Your task to perform on an android device: turn on notifications settings in the gmail app Image 0: 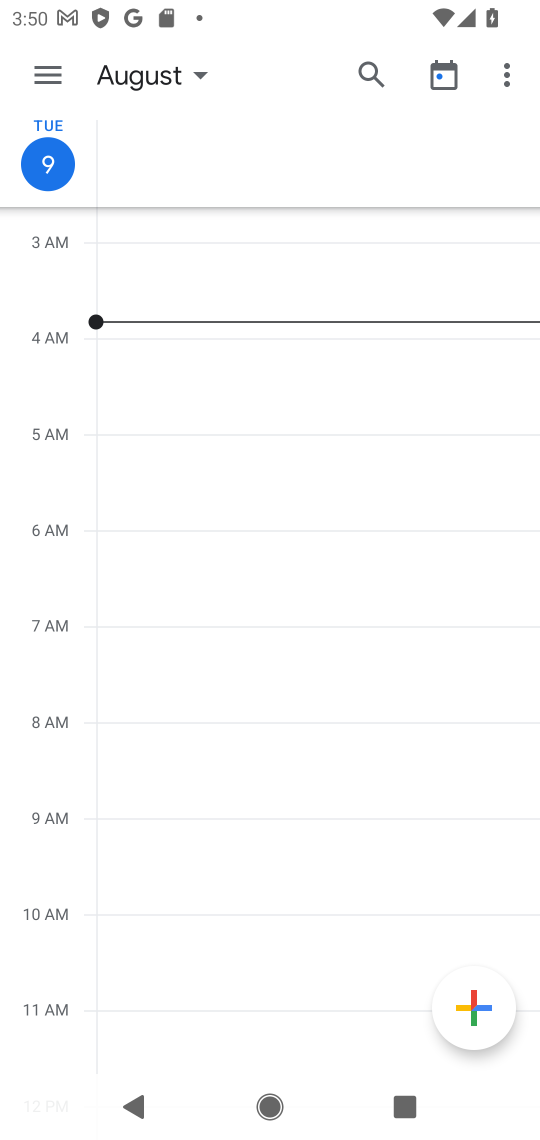
Step 0: press home button
Your task to perform on an android device: turn on notifications settings in the gmail app Image 1: 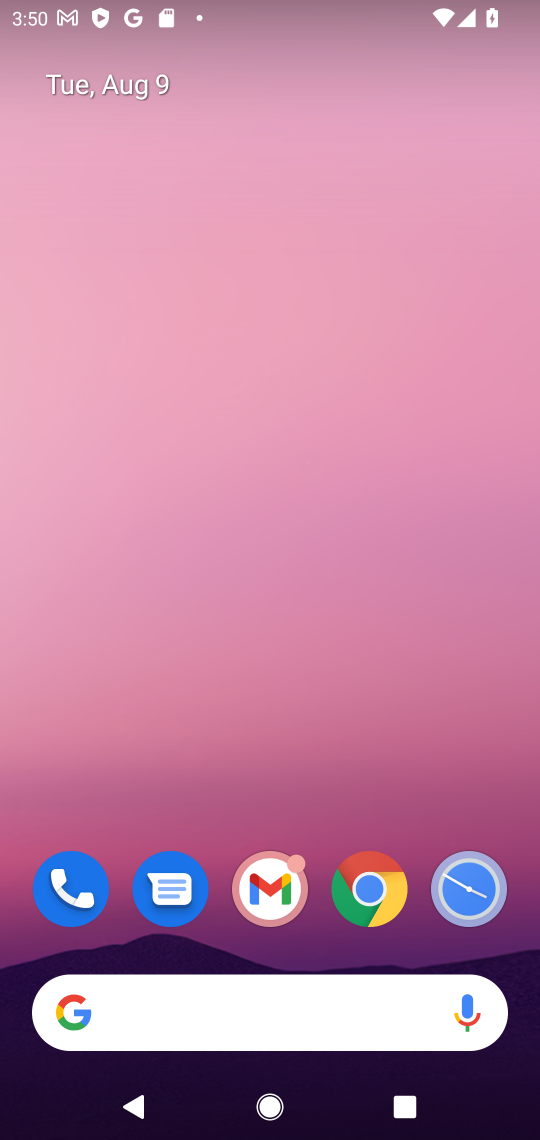
Step 1: click (278, 884)
Your task to perform on an android device: turn on notifications settings in the gmail app Image 2: 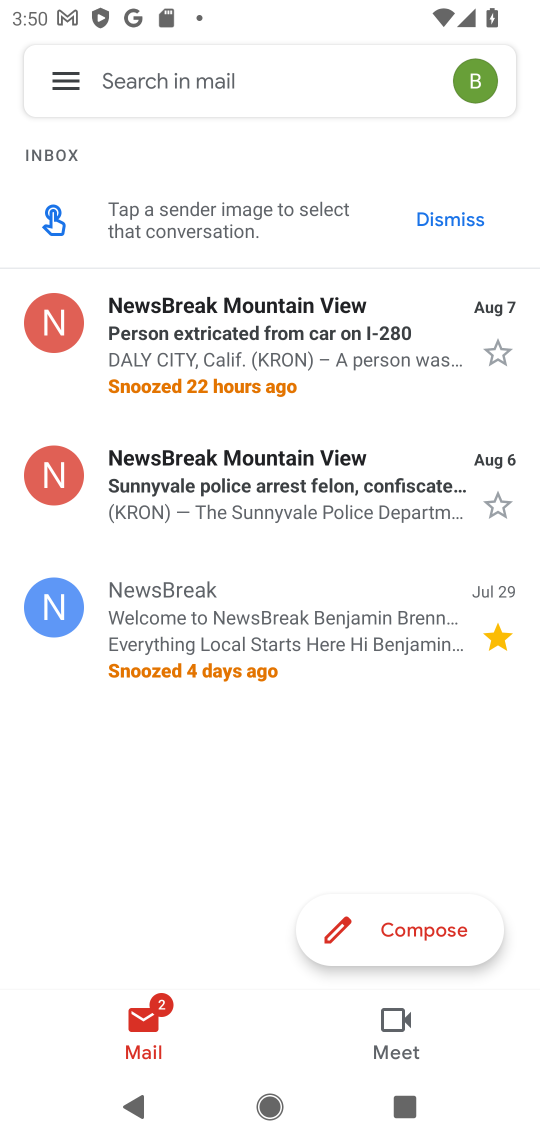
Step 2: click (65, 75)
Your task to perform on an android device: turn on notifications settings in the gmail app Image 3: 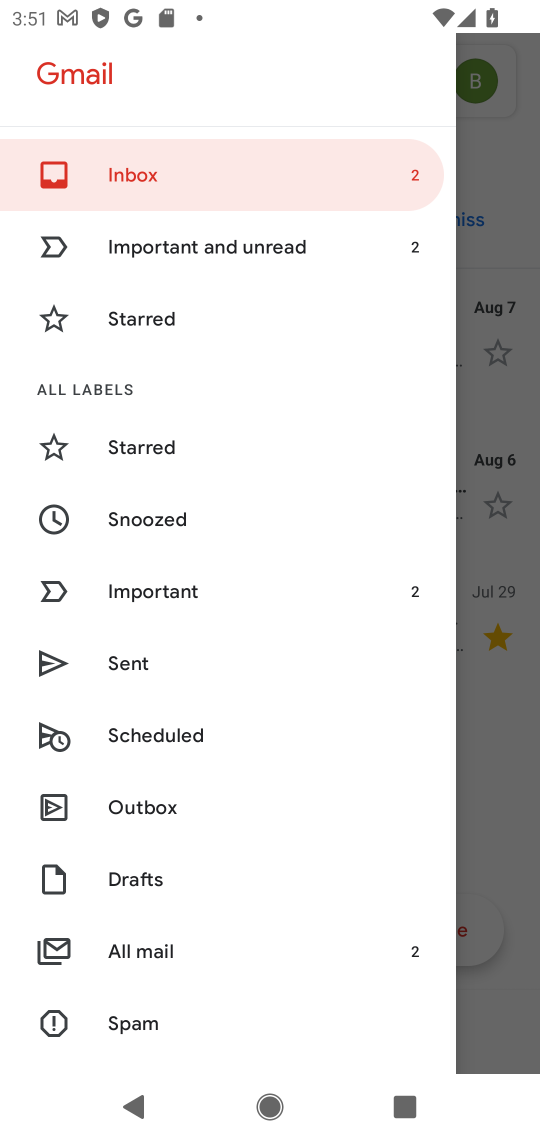
Step 3: drag from (209, 886) to (291, 159)
Your task to perform on an android device: turn on notifications settings in the gmail app Image 4: 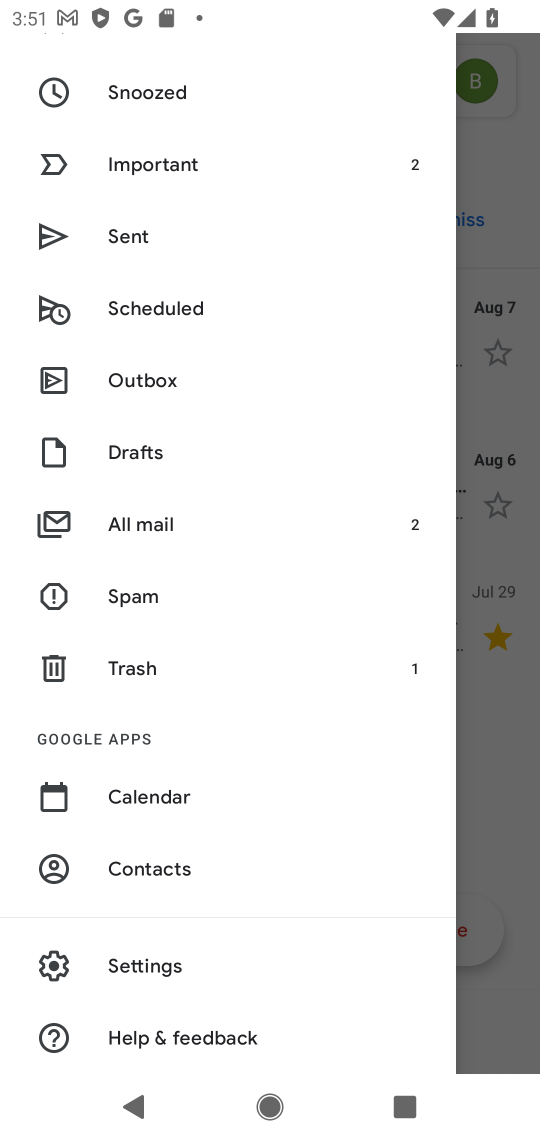
Step 4: click (158, 963)
Your task to perform on an android device: turn on notifications settings in the gmail app Image 5: 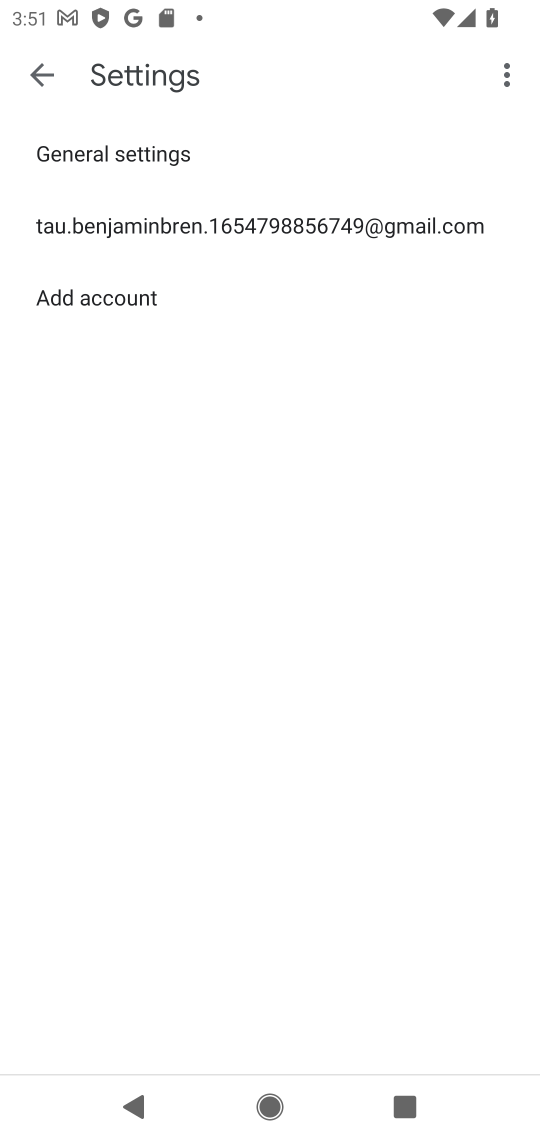
Step 5: click (286, 217)
Your task to perform on an android device: turn on notifications settings in the gmail app Image 6: 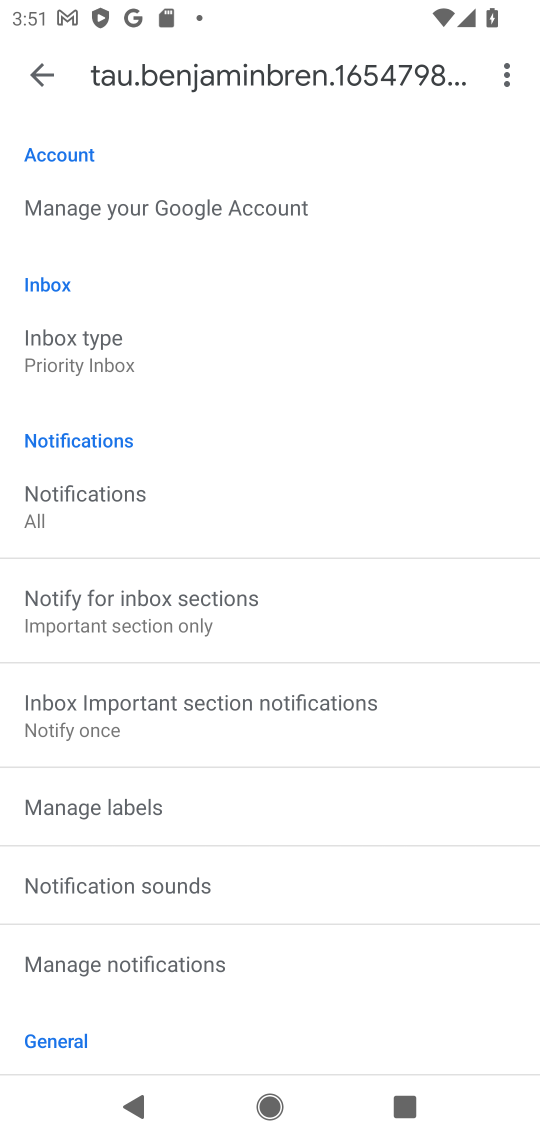
Step 6: click (209, 959)
Your task to perform on an android device: turn on notifications settings in the gmail app Image 7: 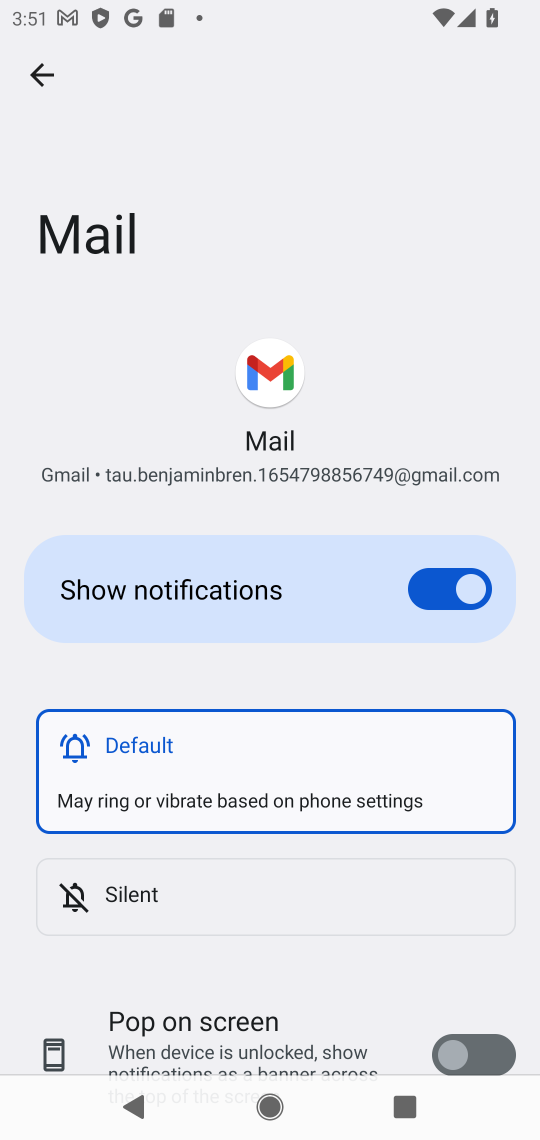
Step 7: task complete